Your task to perform on an android device: uninstall "Skype" Image 0: 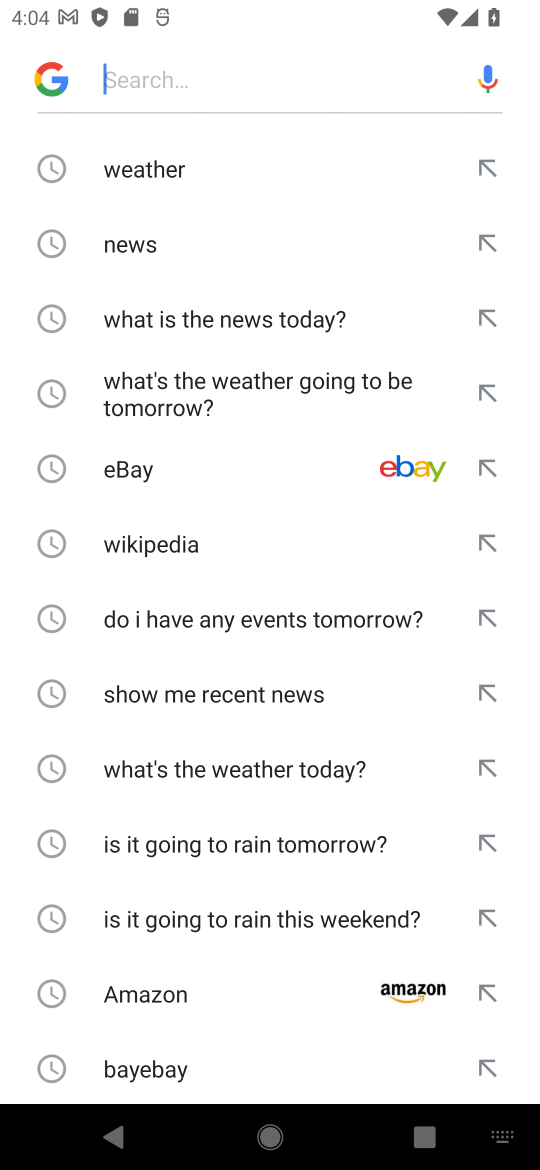
Step 0: press back button
Your task to perform on an android device: uninstall "Skype" Image 1: 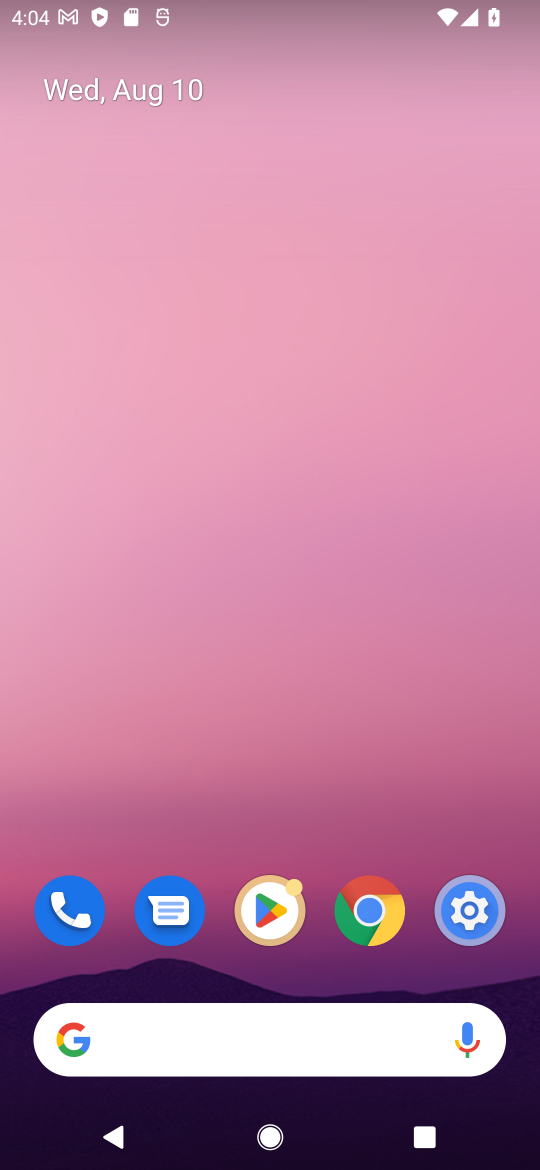
Step 1: click (257, 913)
Your task to perform on an android device: uninstall "Skype" Image 2: 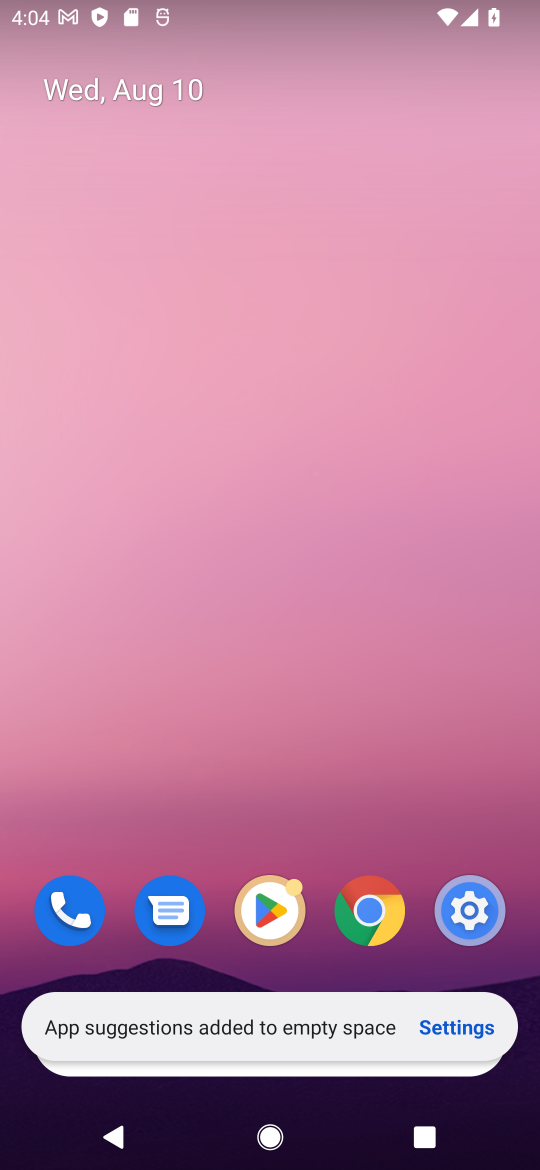
Step 2: click (285, 903)
Your task to perform on an android device: uninstall "Skype" Image 3: 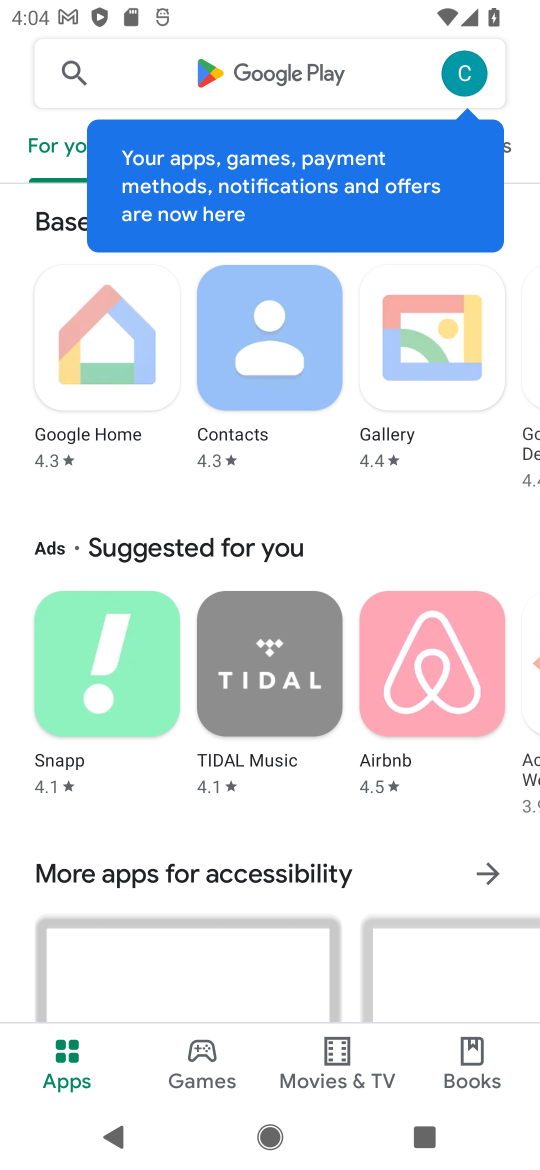
Step 3: click (285, 76)
Your task to perform on an android device: uninstall "Skype" Image 4: 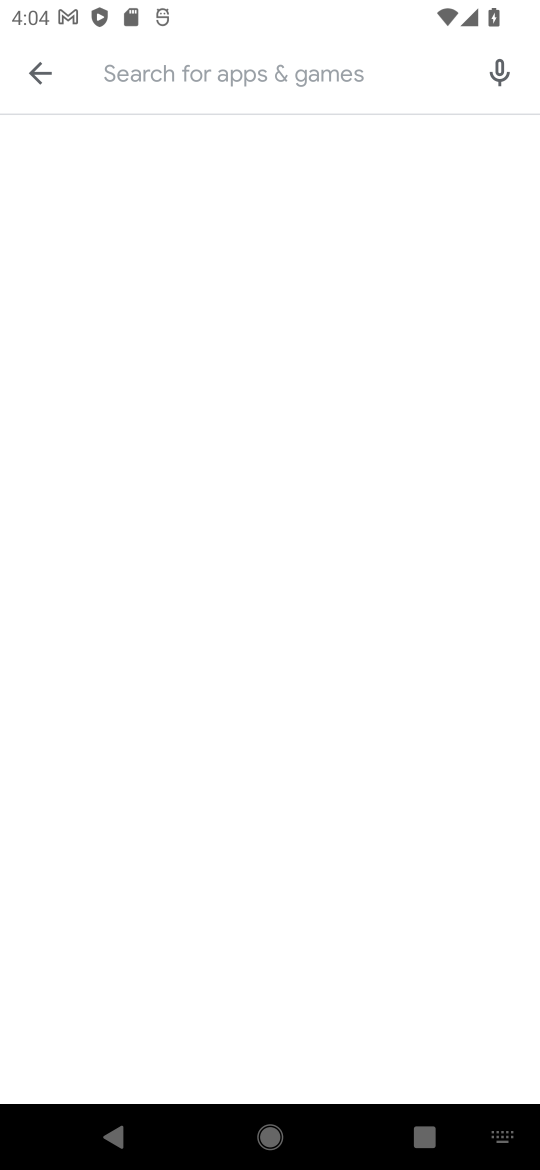
Step 4: type "skype"
Your task to perform on an android device: uninstall "Skype" Image 5: 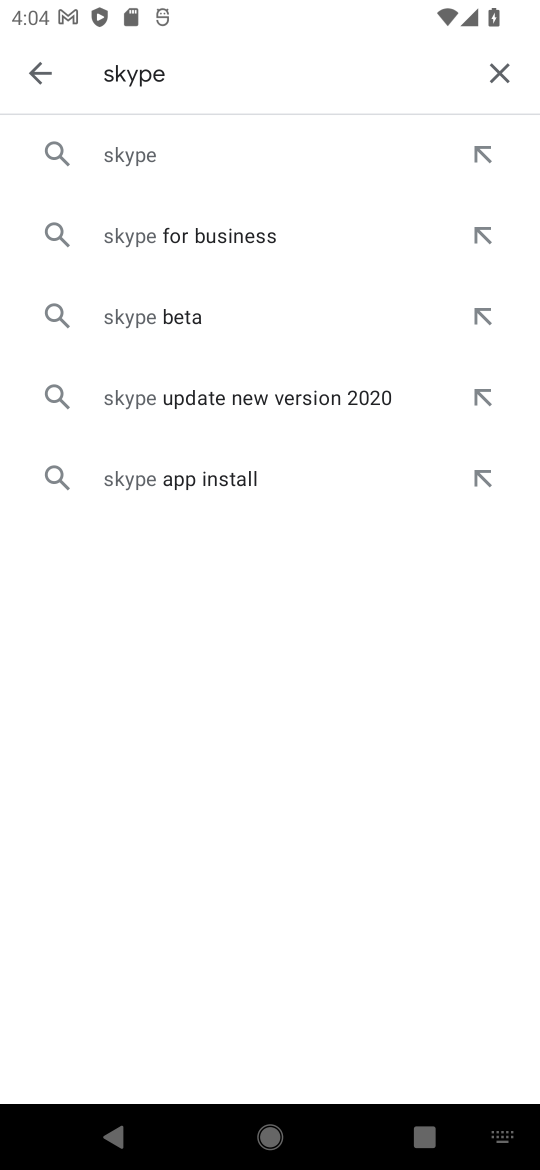
Step 5: click (168, 139)
Your task to perform on an android device: uninstall "Skype" Image 6: 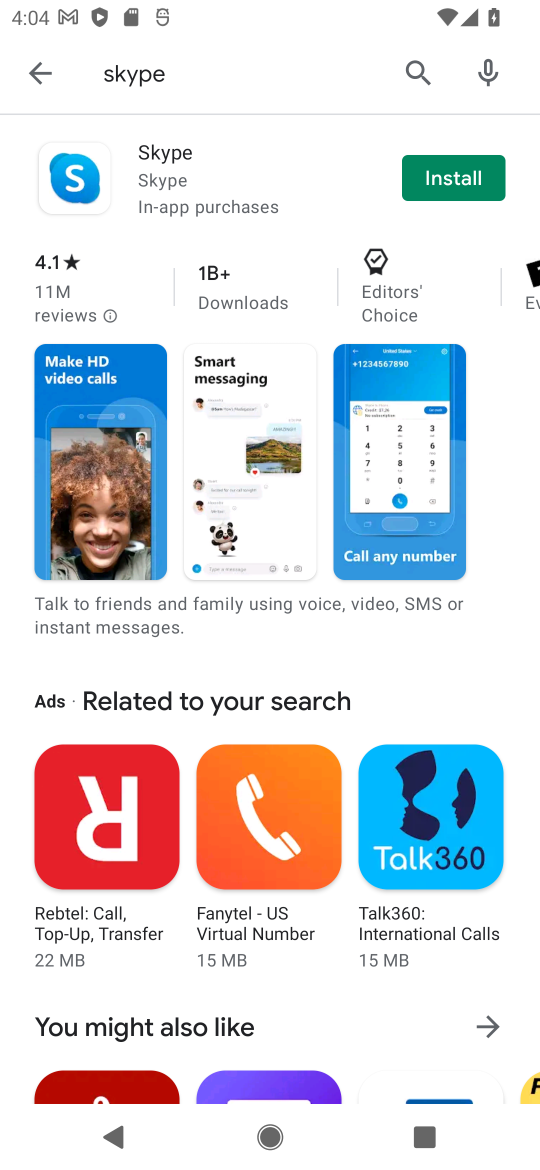
Step 6: task complete